Your task to perform on an android device: turn on improve location accuracy Image 0: 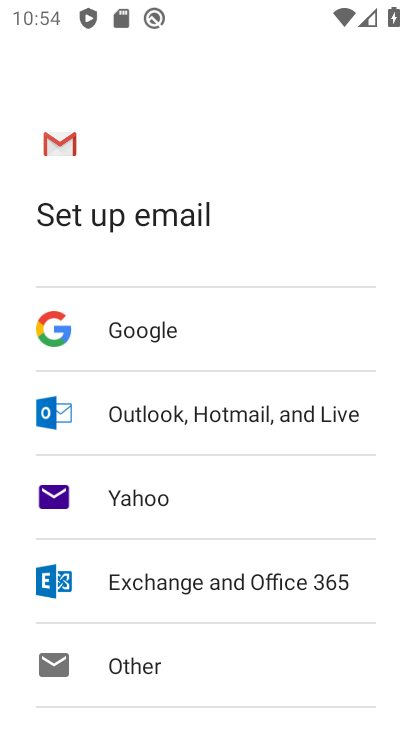
Step 0: press home button
Your task to perform on an android device: turn on improve location accuracy Image 1: 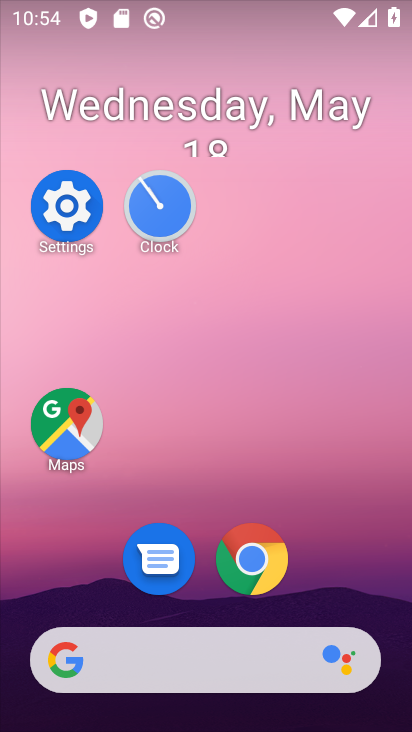
Step 1: click (72, 223)
Your task to perform on an android device: turn on improve location accuracy Image 2: 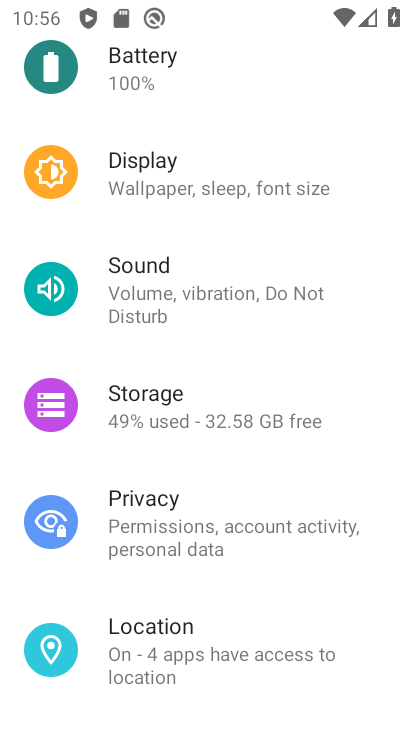
Step 2: drag from (308, 418) to (314, 204)
Your task to perform on an android device: turn on improve location accuracy Image 3: 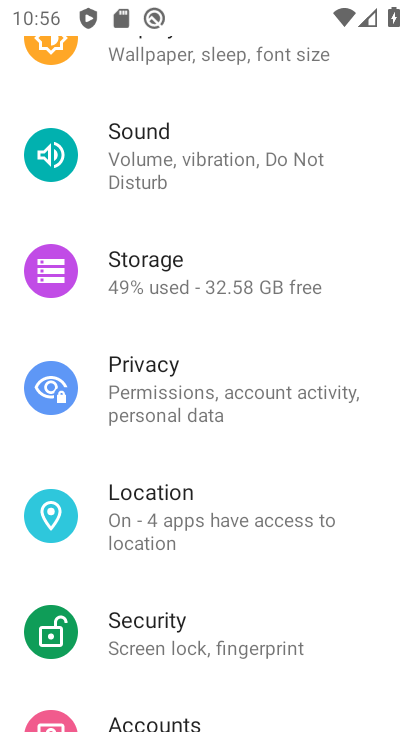
Step 3: click (197, 518)
Your task to perform on an android device: turn on improve location accuracy Image 4: 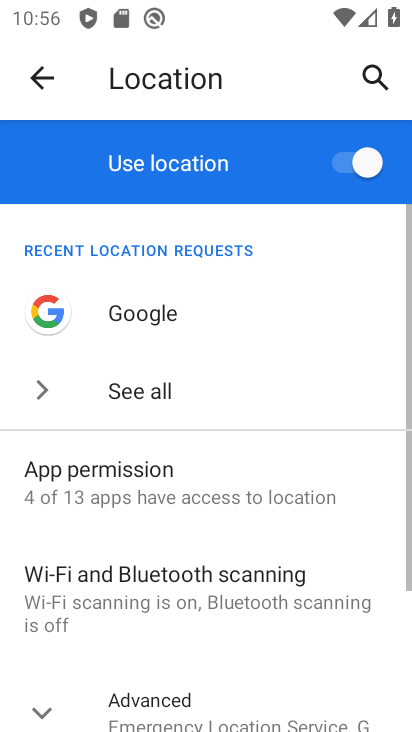
Step 4: drag from (283, 546) to (344, 124)
Your task to perform on an android device: turn on improve location accuracy Image 5: 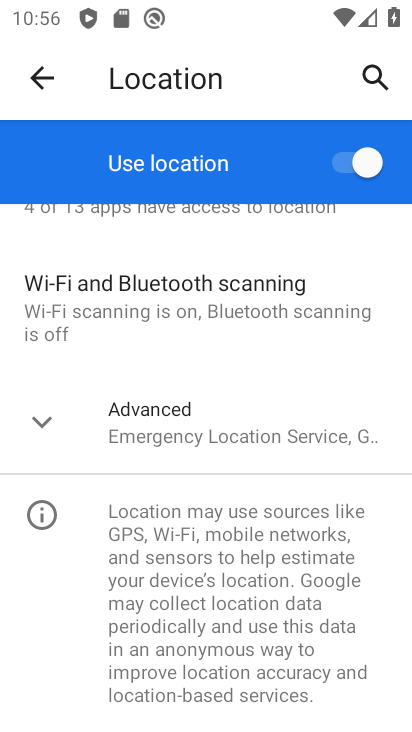
Step 5: click (241, 450)
Your task to perform on an android device: turn on improve location accuracy Image 6: 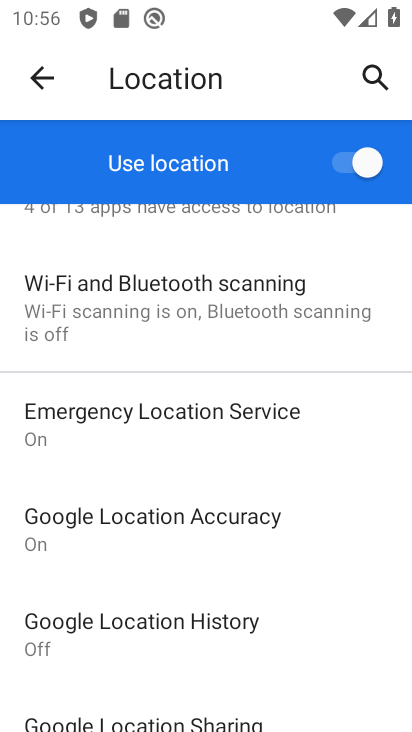
Step 6: click (240, 536)
Your task to perform on an android device: turn on improve location accuracy Image 7: 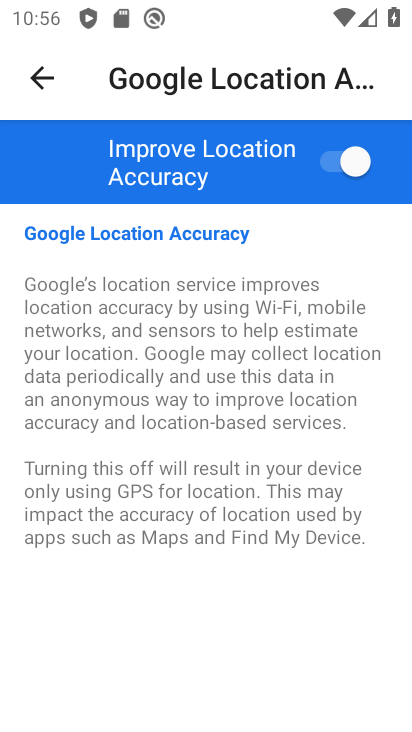
Step 7: task complete